Your task to perform on an android device: Open Google Maps and go to "Timeline" Image 0: 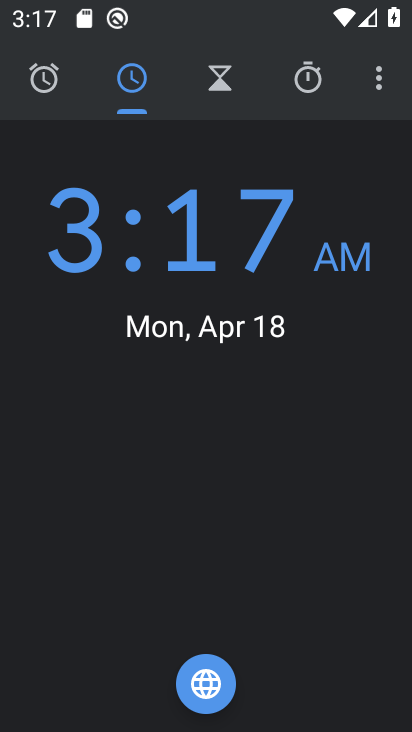
Step 0: press home button
Your task to perform on an android device: Open Google Maps and go to "Timeline" Image 1: 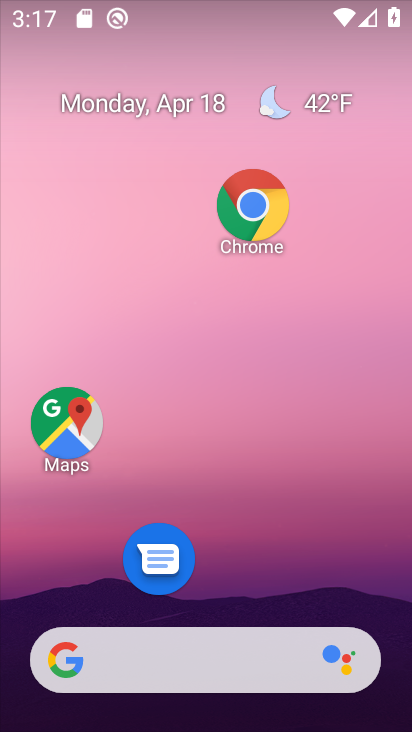
Step 1: drag from (217, 478) to (244, 173)
Your task to perform on an android device: Open Google Maps and go to "Timeline" Image 2: 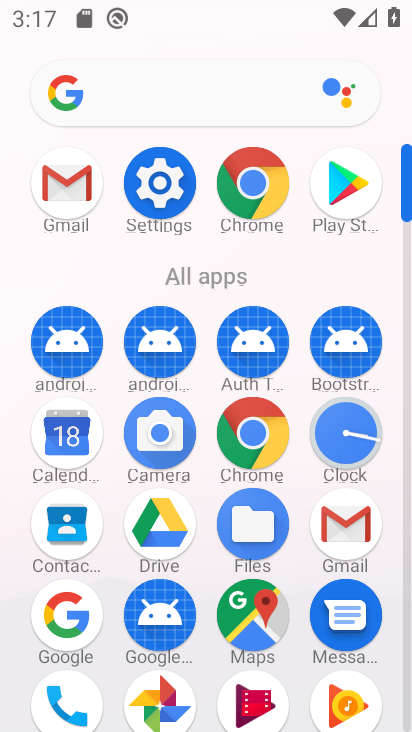
Step 2: click (270, 625)
Your task to perform on an android device: Open Google Maps and go to "Timeline" Image 3: 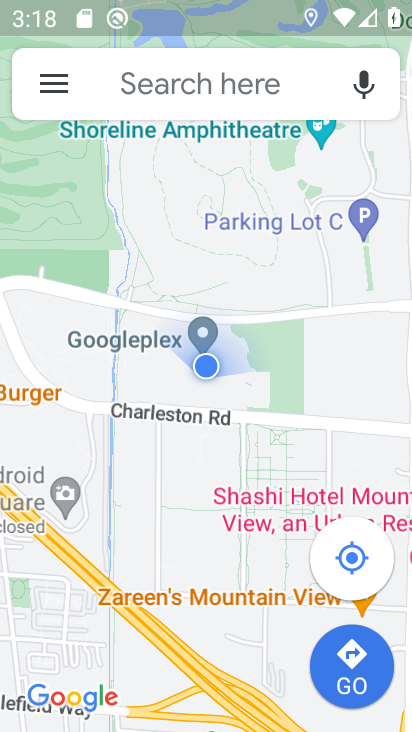
Step 3: click (40, 78)
Your task to perform on an android device: Open Google Maps and go to "Timeline" Image 4: 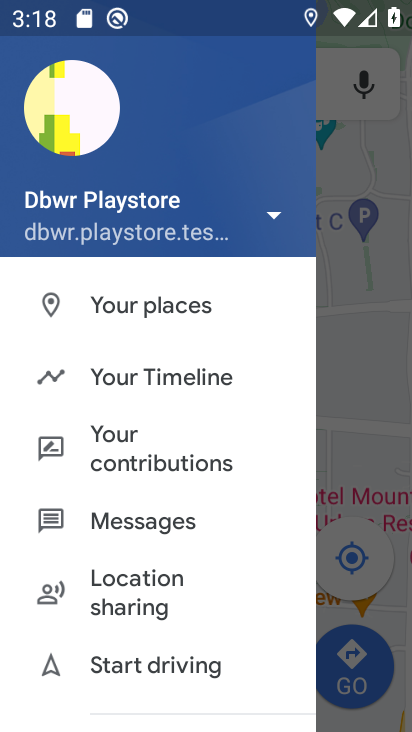
Step 4: click (183, 389)
Your task to perform on an android device: Open Google Maps and go to "Timeline" Image 5: 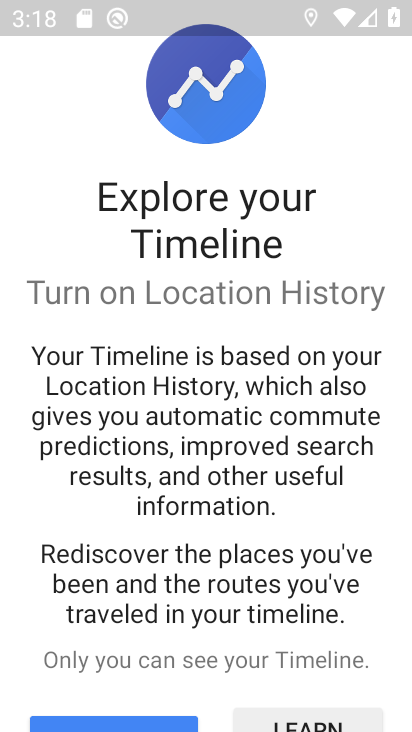
Step 5: task complete